Your task to perform on an android device: turn off location history Image 0: 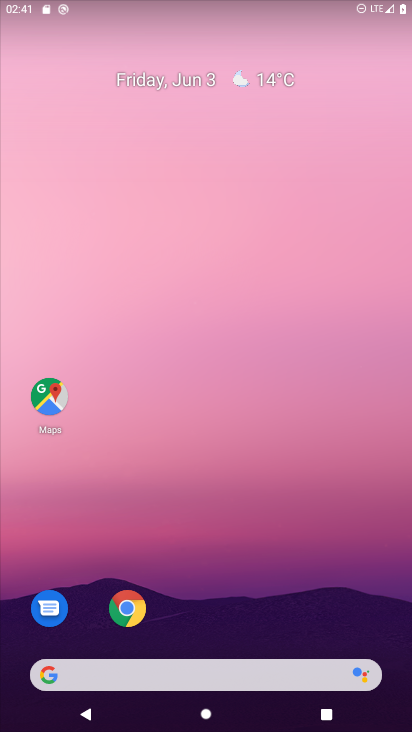
Step 0: drag from (220, 592) to (212, 211)
Your task to perform on an android device: turn off location history Image 1: 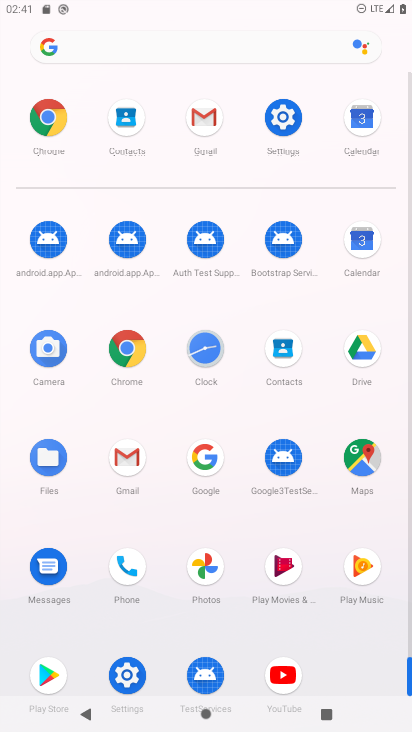
Step 1: click (283, 114)
Your task to perform on an android device: turn off location history Image 2: 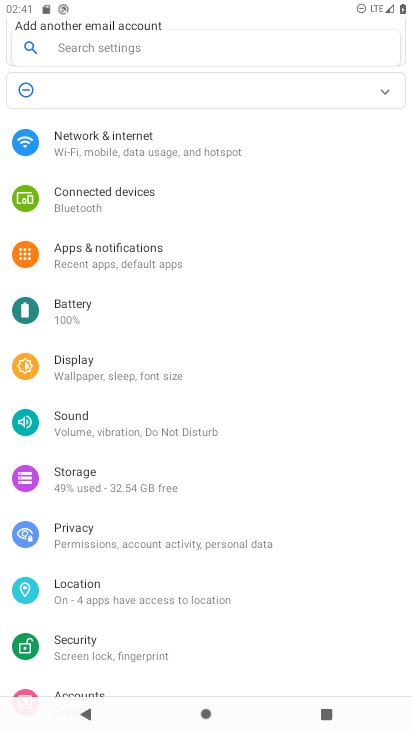
Step 2: click (167, 594)
Your task to perform on an android device: turn off location history Image 3: 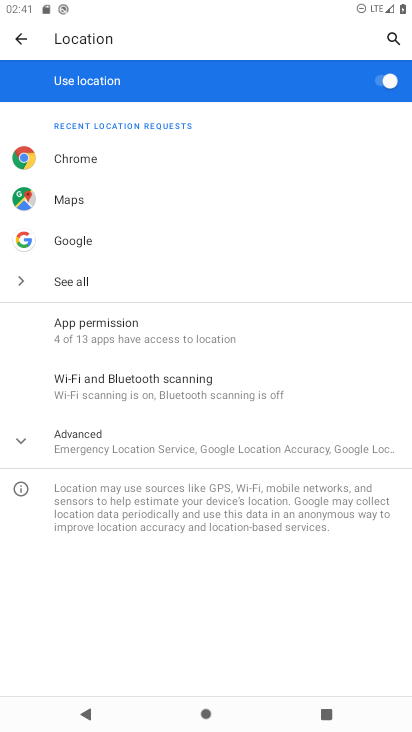
Step 3: click (82, 438)
Your task to perform on an android device: turn off location history Image 4: 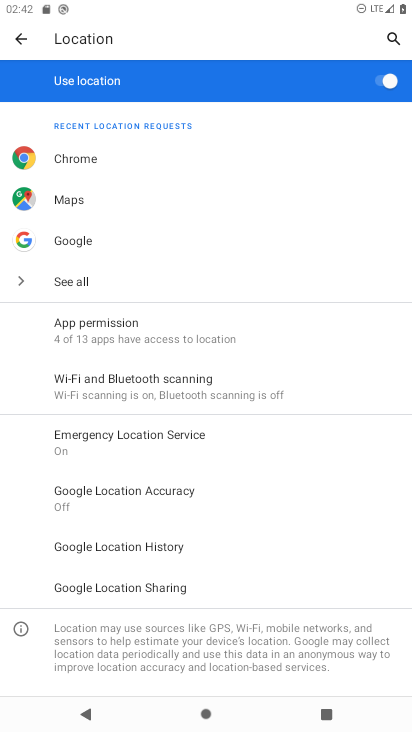
Step 4: click (149, 544)
Your task to perform on an android device: turn off location history Image 5: 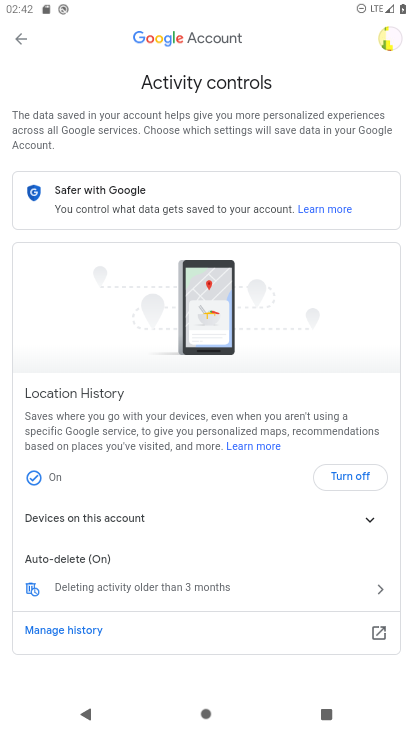
Step 5: click (336, 482)
Your task to perform on an android device: turn off location history Image 6: 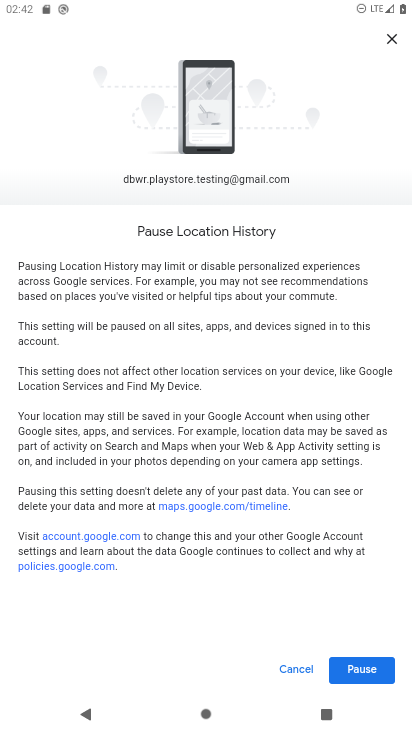
Step 6: click (354, 672)
Your task to perform on an android device: turn off location history Image 7: 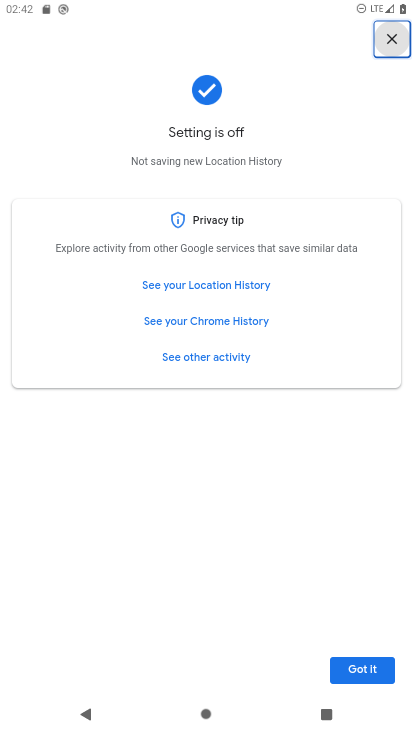
Step 7: task complete